Your task to perform on an android device: change timer sound Image 0: 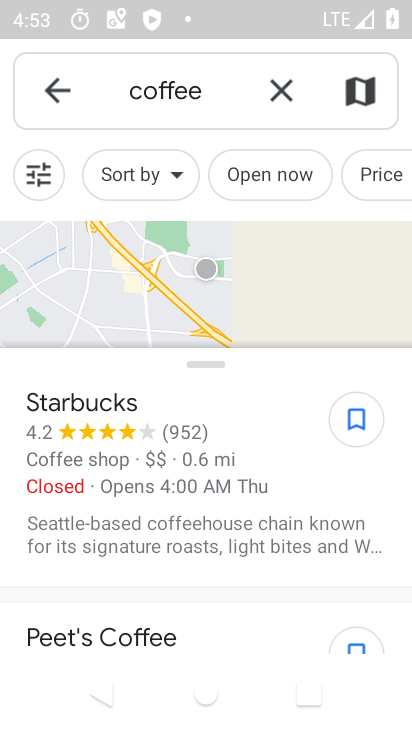
Step 0: press home button
Your task to perform on an android device: change timer sound Image 1: 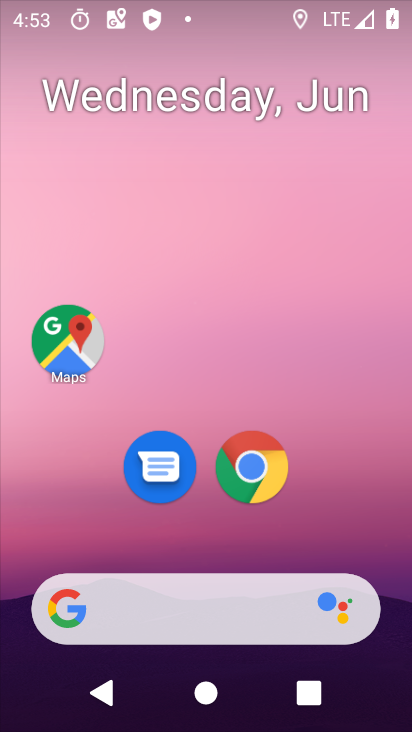
Step 1: drag from (330, 346) to (274, 38)
Your task to perform on an android device: change timer sound Image 2: 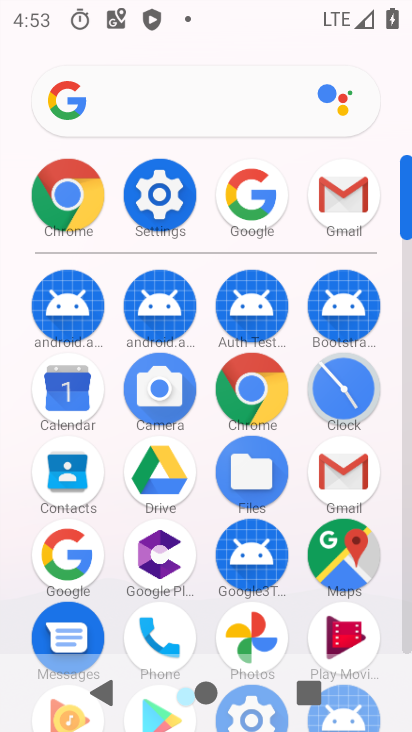
Step 2: click (365, 385)
Your task to perform on an android device: change timer sound Image 3: 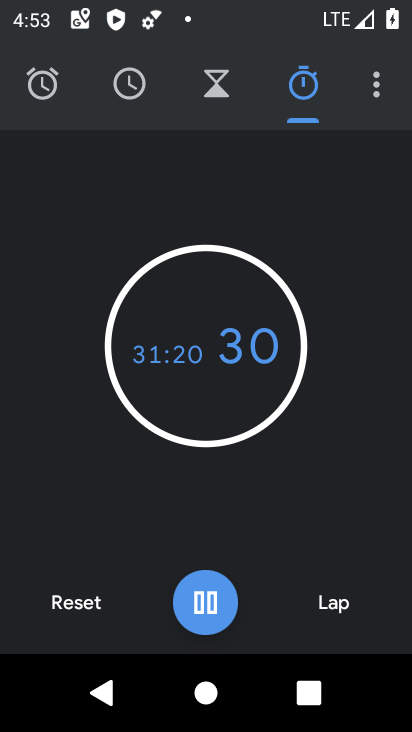
Step 3: click (365, 77)
Your task to perform on an android device: change timer sound Image 4: 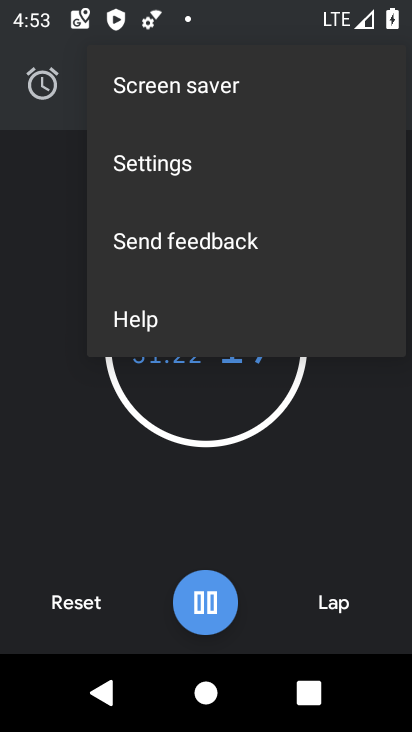
Step 4: click (248, 192)
Your task to perform on an android device: change timer sound Image 5: 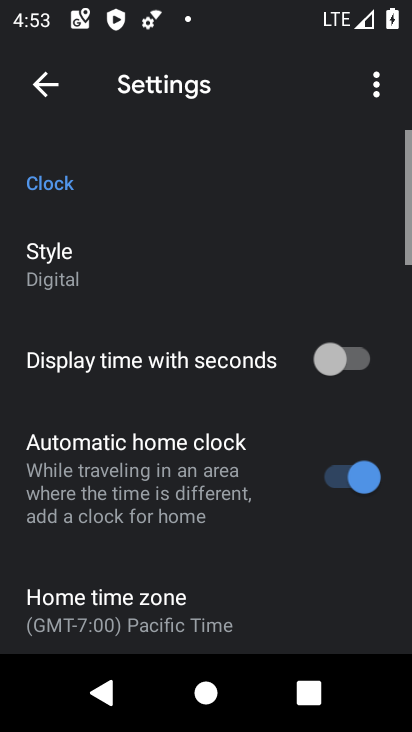
Step 5: drag from (250, 523) to (274, 30)
Your task to perform on an android device: change timer sound Image 6: 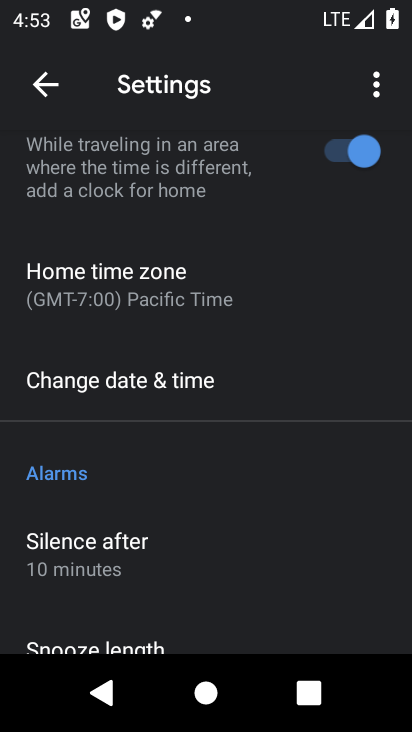
Step 6: drag from (276, 423) to (261, 99)
Your task to perform on an android device: change timer sound Image 7: 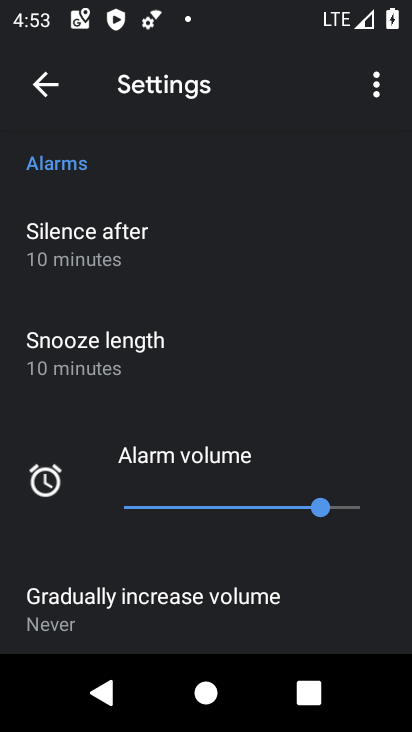
Step 7: drag from (182, 544) to (245, 162)
Your task to perform on an android device: change timer sound Image 8: 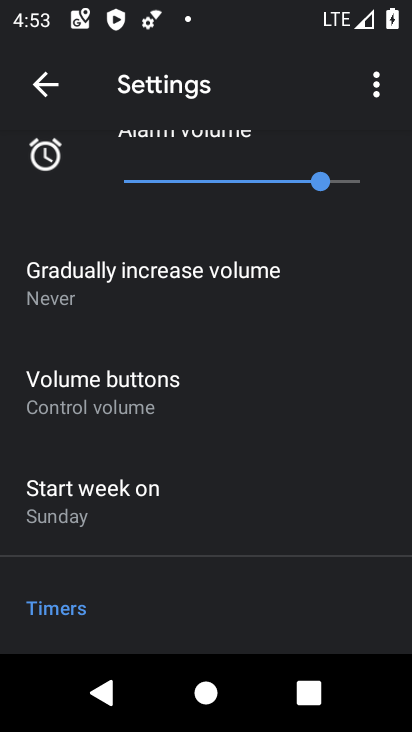
Step 8: drag from (235, 365) to (230, 129)
Your task to perform on an android device: change timer sound Image 9: 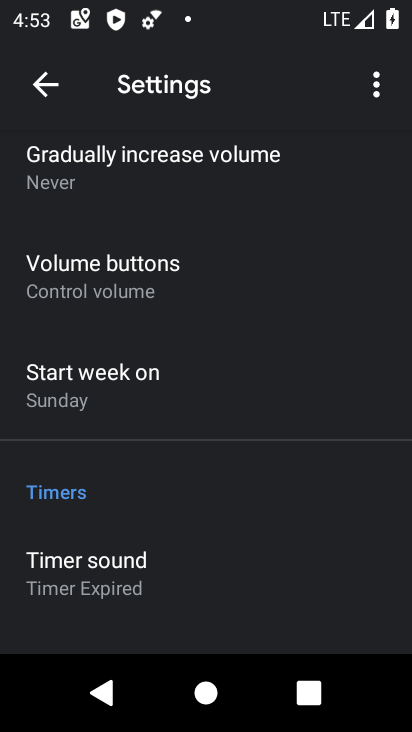
Step 9: click (181, 584)
Your task to perform on an android device: change timer sound Image 10: 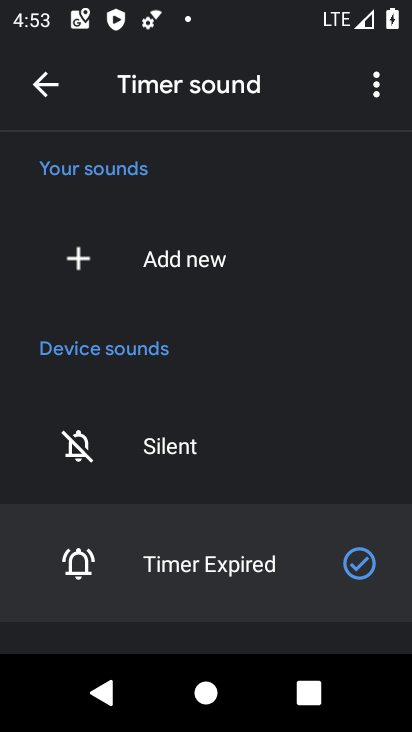
Step 10: drag from (268, 193) to (252, 146)
Your task to perform on an android device: change timer sound Image 11: 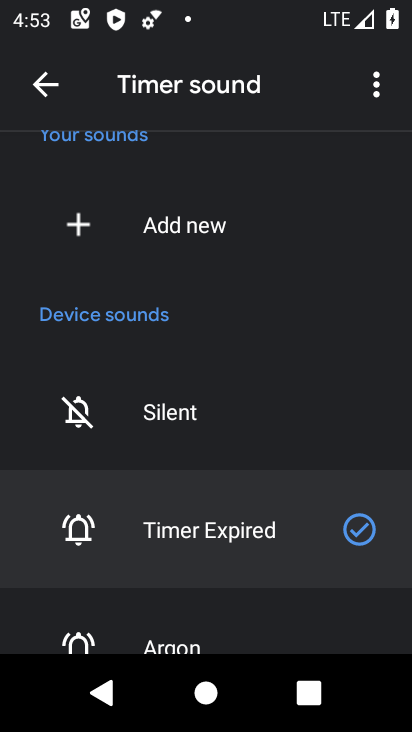
Step 11: click (250, 632)
Your task to perform on an android device: change timer sound Image 12: 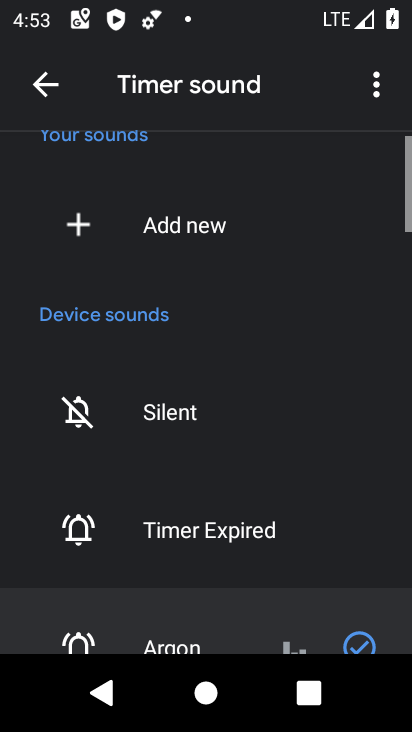
Step 12: task complete